Your task to perform on an android device: Open Google Chrome and open the bookmarks view Image 0: 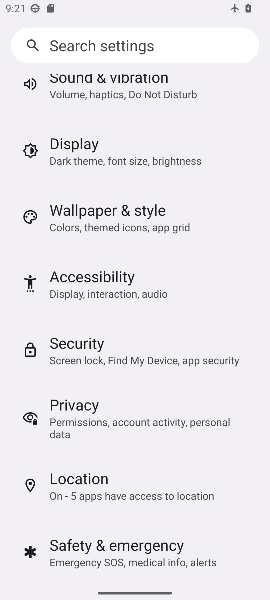
Step 0: press home button
Your task to perform on an android device: Open Google Chrome and open the bookmarks view Image 1: 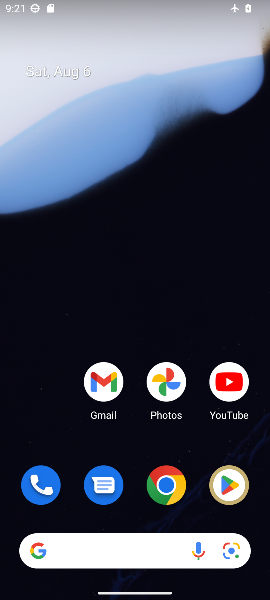
Step 1: drag from (194, 449) to (192, 23)
Your task to perform on an android device: Open Google Chrome and open the bookmarks view Image 2: 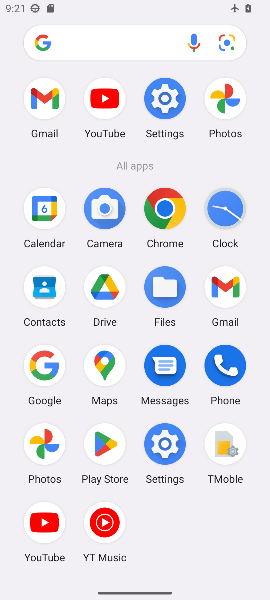
Step 2: click (165, 208)
Your task to perform on an android device: Open Google Chrome and open the bookmarks view Image 3: 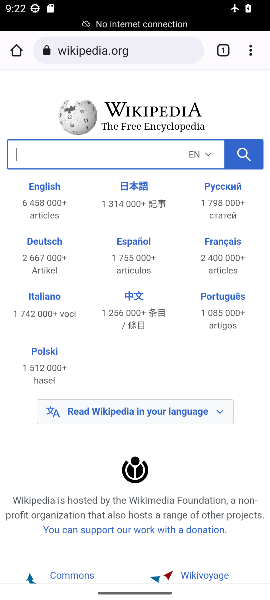
Step 3: task complete